Your task to perform on an android device: turn pop-ups off in chrome Image 0: 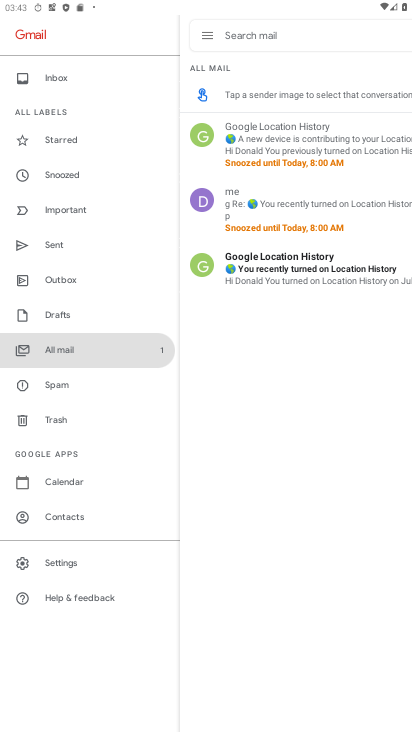
Step 0: press home button
Your task to perform on an android device: turn pop-ups off in chrome Image 1: 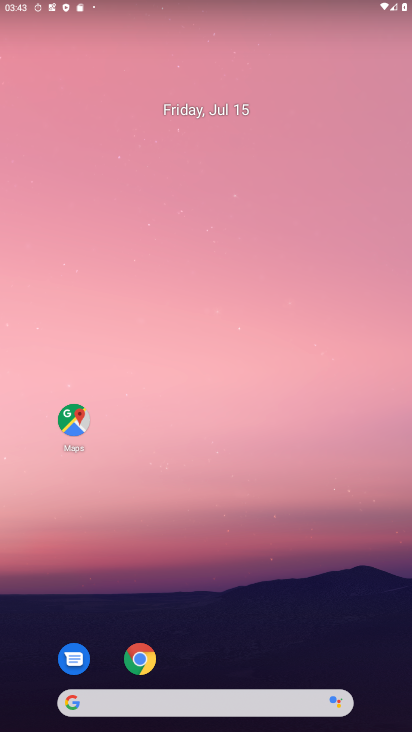
Step 1: click (129, 656)
Your task to perform on an android device: turn pop-ups off in chrome Image 2: 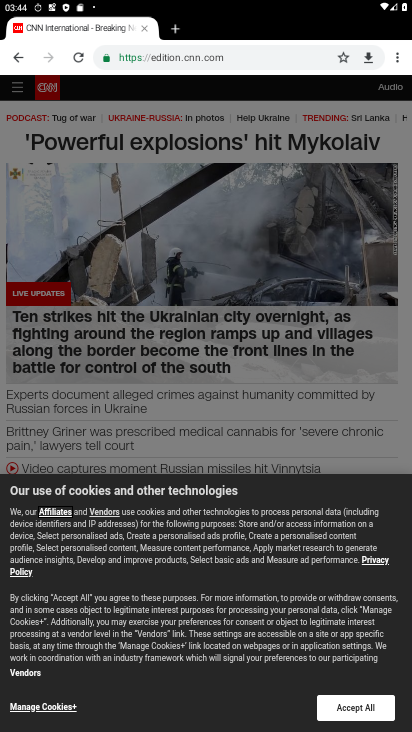
Step 2: click (391, 55)
Your task to perform on an android device: turn pop-ups off in chrome Image 3: 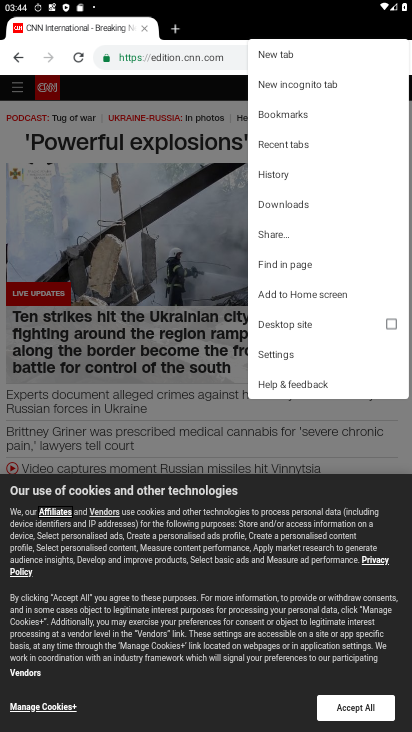
Step 3: click (272, 354)
Your task to perform on an android device: turn pop-ups off in chrome Image 4: 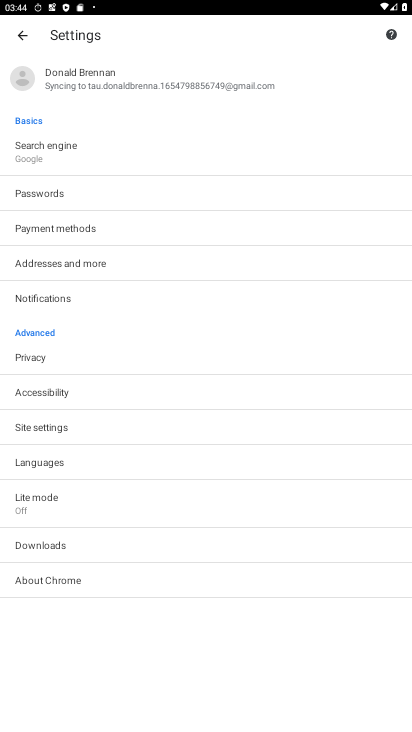
Step 4: click (33, 433)
Your task to perform on an android device: turn pop-ups off in chrome Image 5: 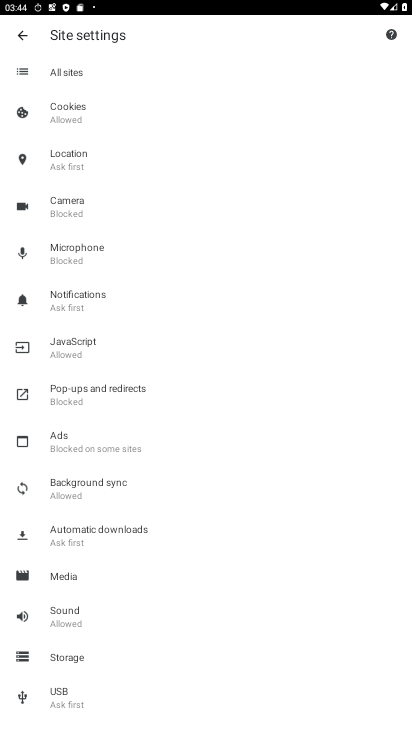
Step 5: click (74, 402)
Your task to perform on an android device: turn pop-ups off in chrome Image 6: 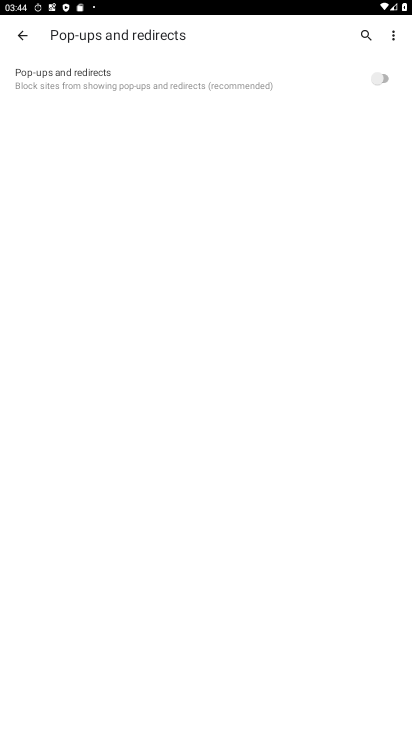
Step 6: task complete